Your task to perform on an android device: Add "logitech g pro" to the cart on walmart Image 0: 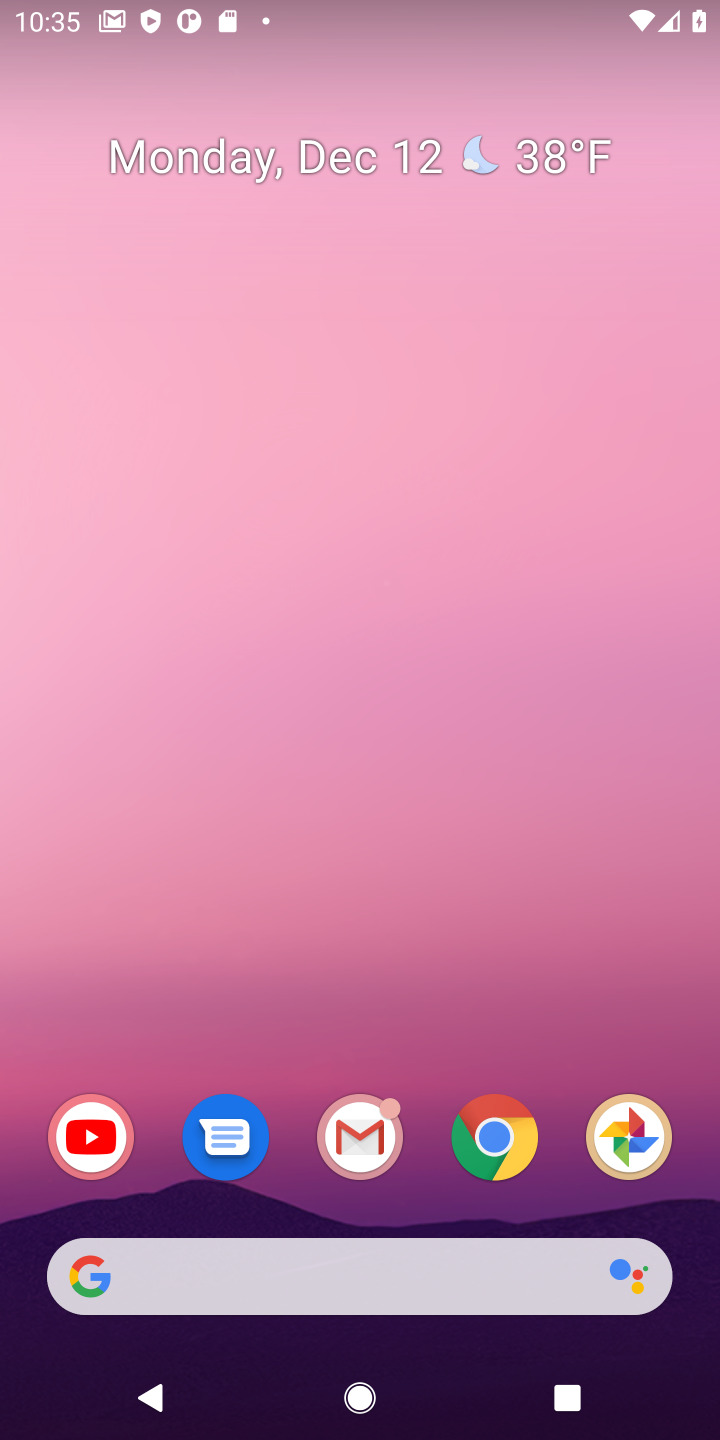
Step 0: press home button
Your task to perform on an android device: Add "logitech g pro" to the cart on walmart Image 1: 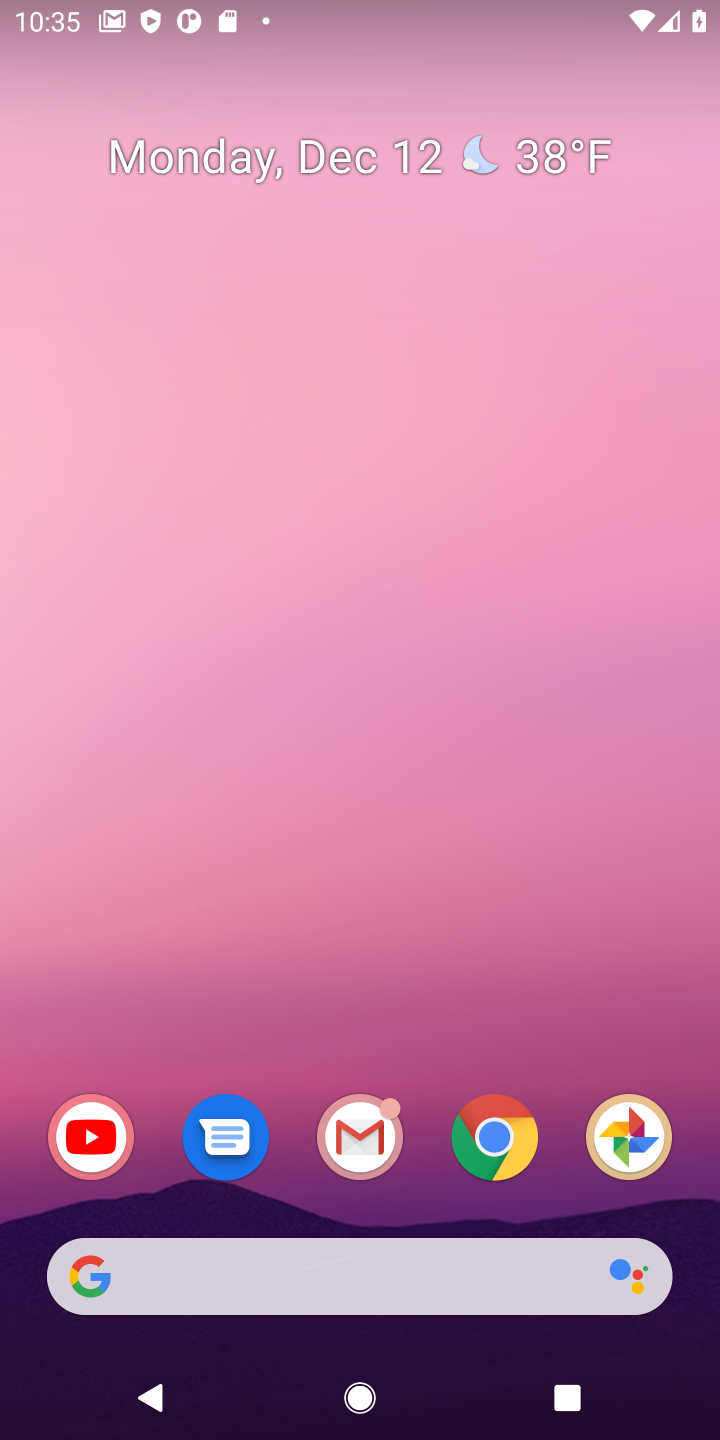
Step 1: click (399, 1278)
Your task to perform on an android device: Add "logitech g pro" to the cart on walmart Image 2: 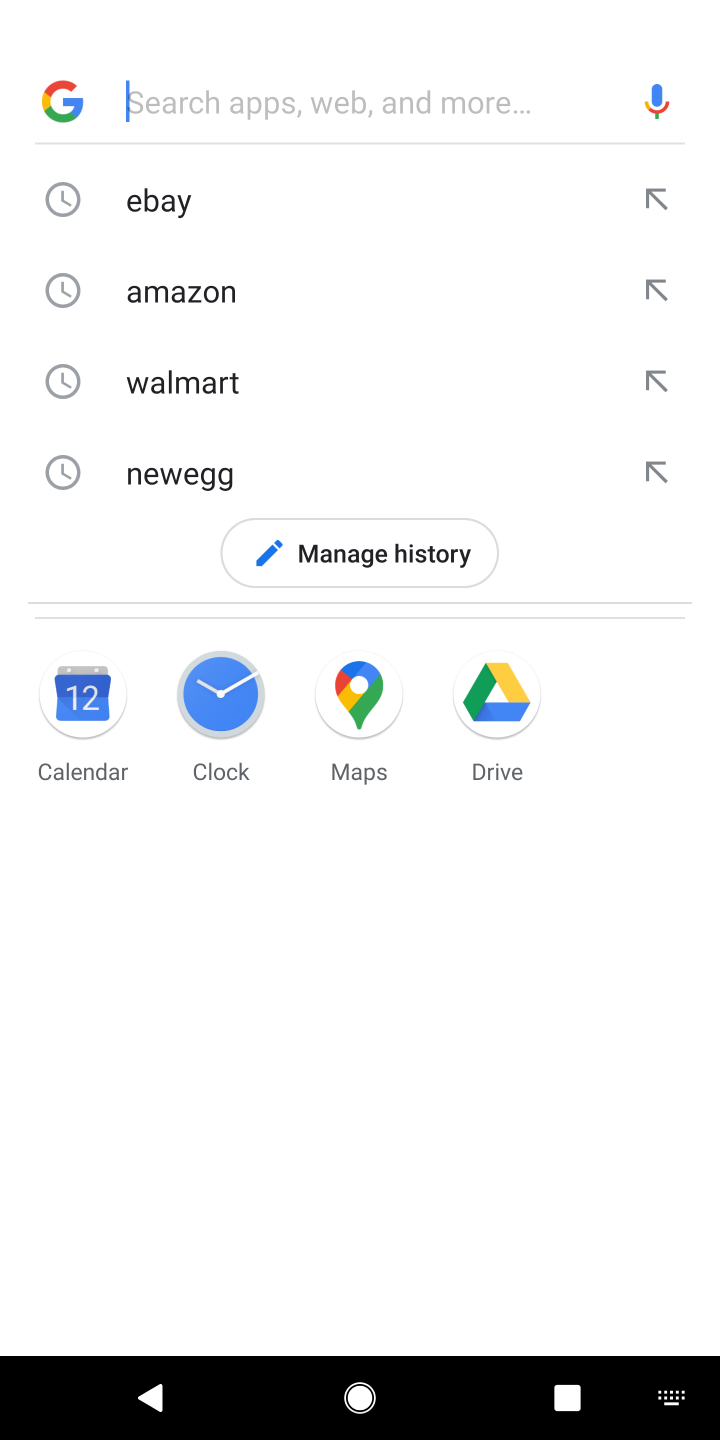
Step 2: click (215, 384)
Your task to perform on an android device: Add "logitech g pro" to the cart on walmart Image 3: 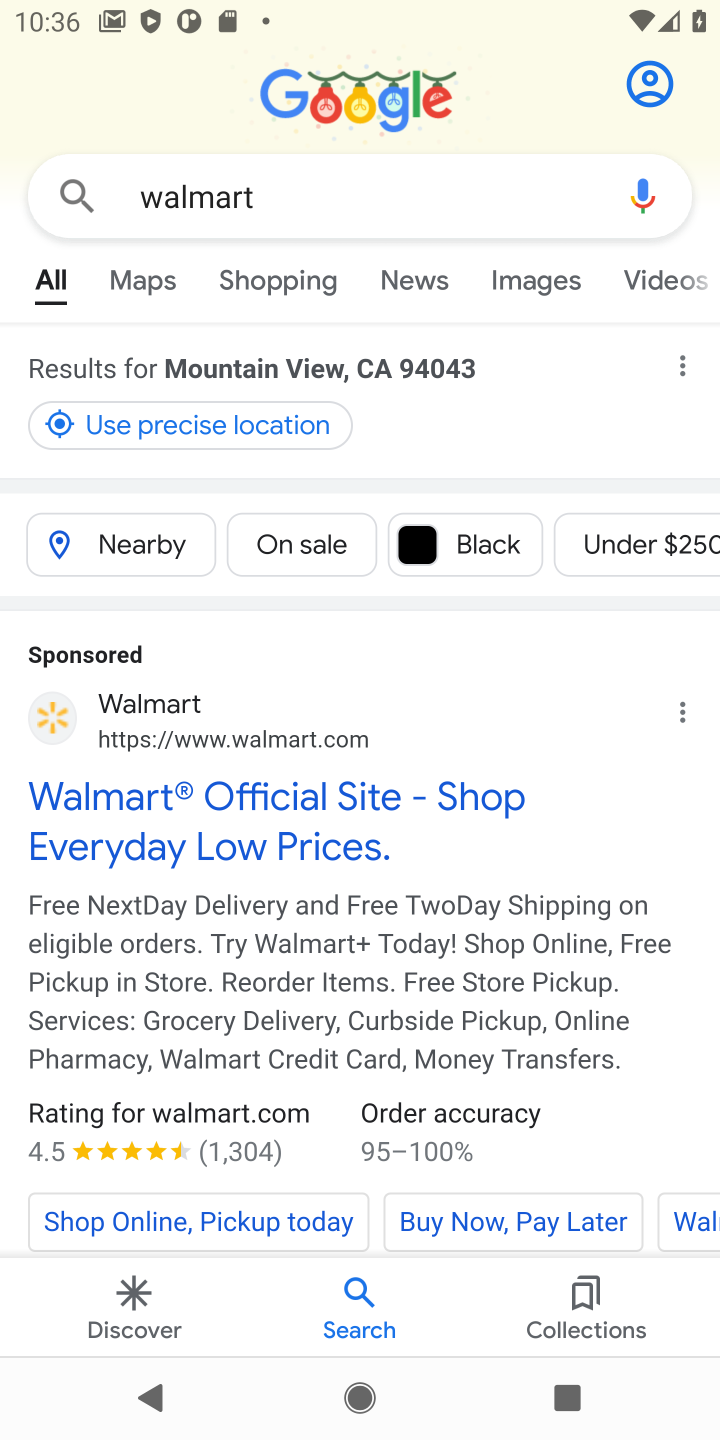
Step 3: click (261, 810)
Your task to perform on an android device: Add "logitech g pro" to the cart on walmart Image 4: 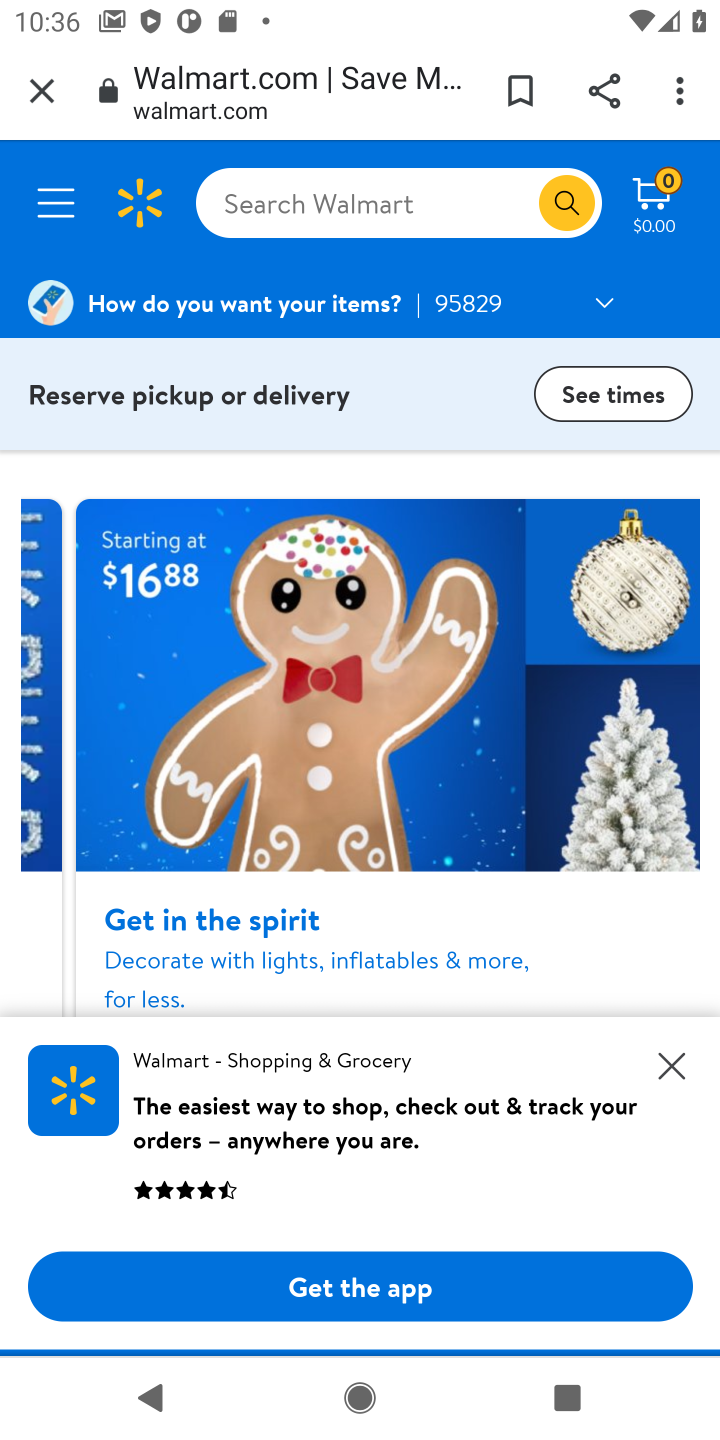
Step 4: click (328, 198)
Your task to perform on an android device: Add "logitech g pro" to the cart on walmart Image 5: 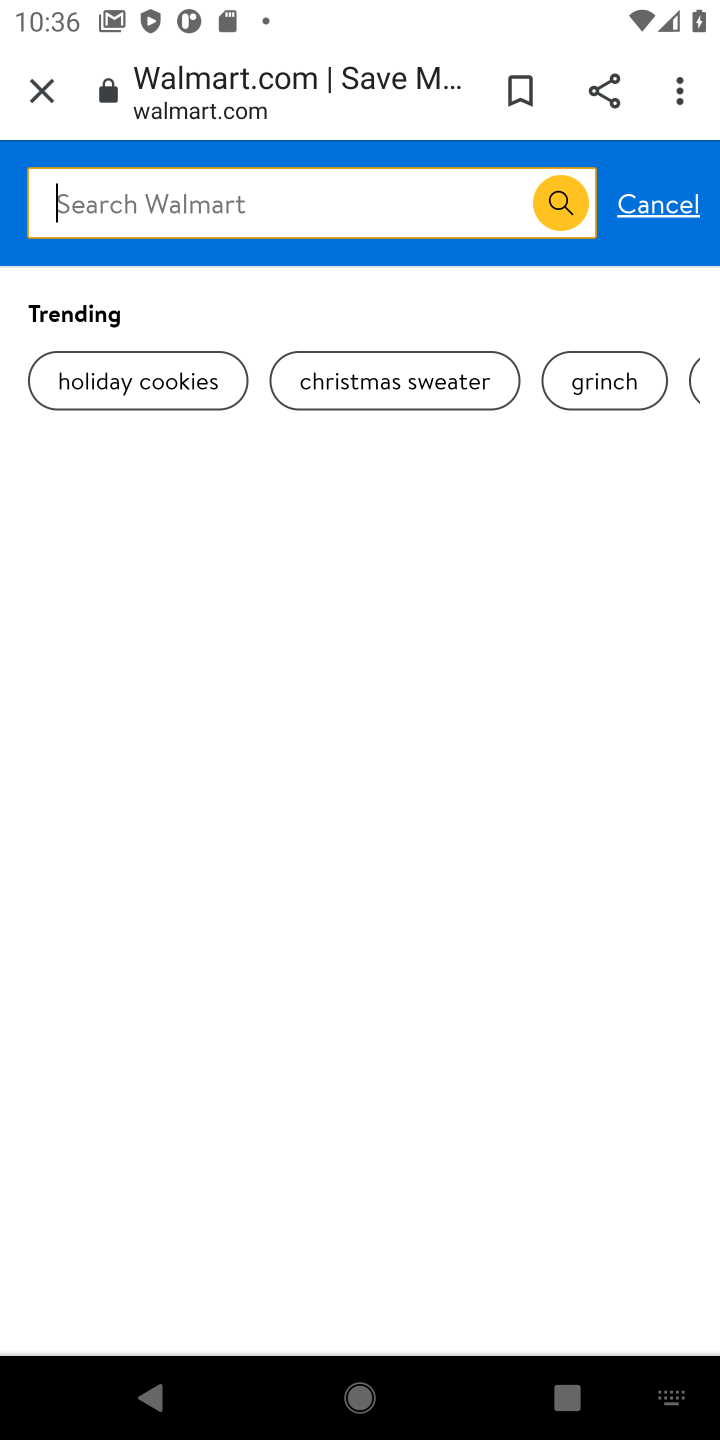
Step 5: type "logitech g pro"
Your task to perform on an android device: Add "logitech g pro" to the cart on walmart Image 6: 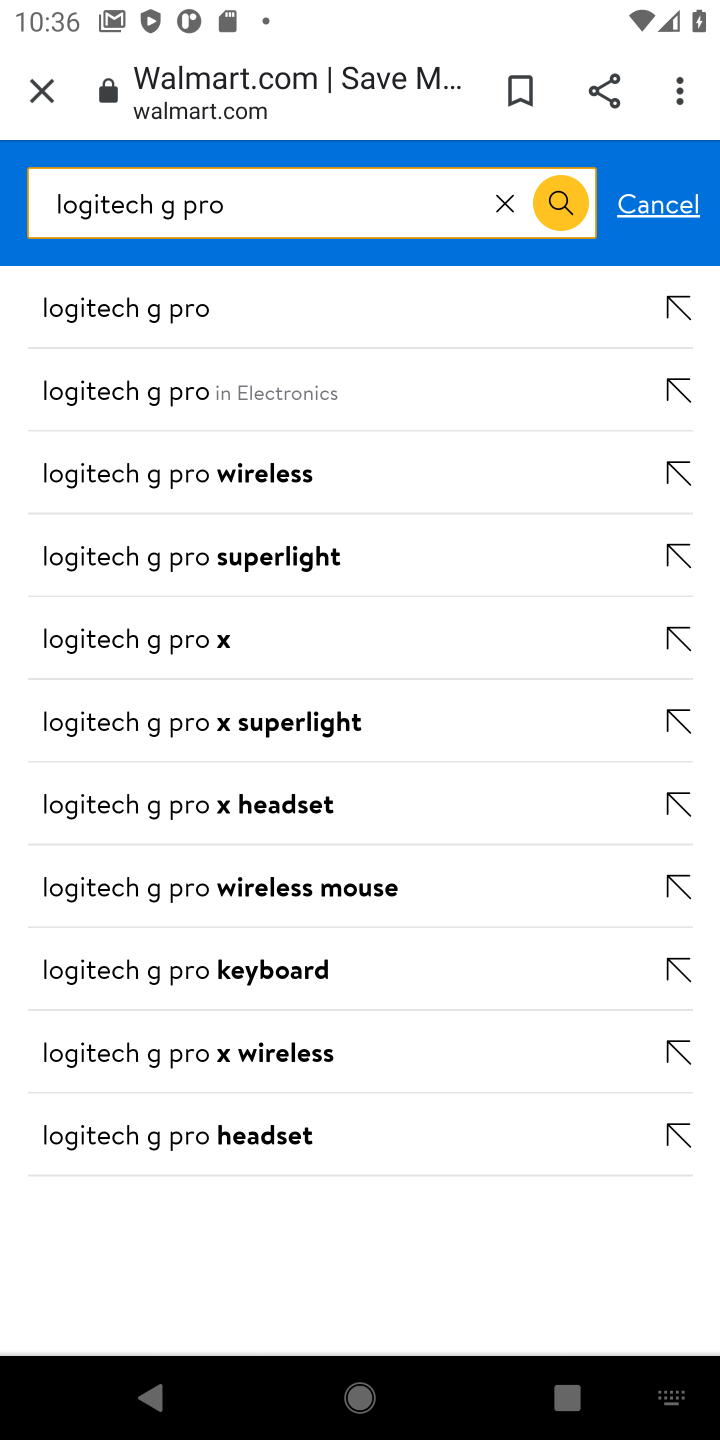
Step 6: click (544, 228)
Your task to perform on an android device: Add "logitech g pro" to the cart on walmart Image 7: 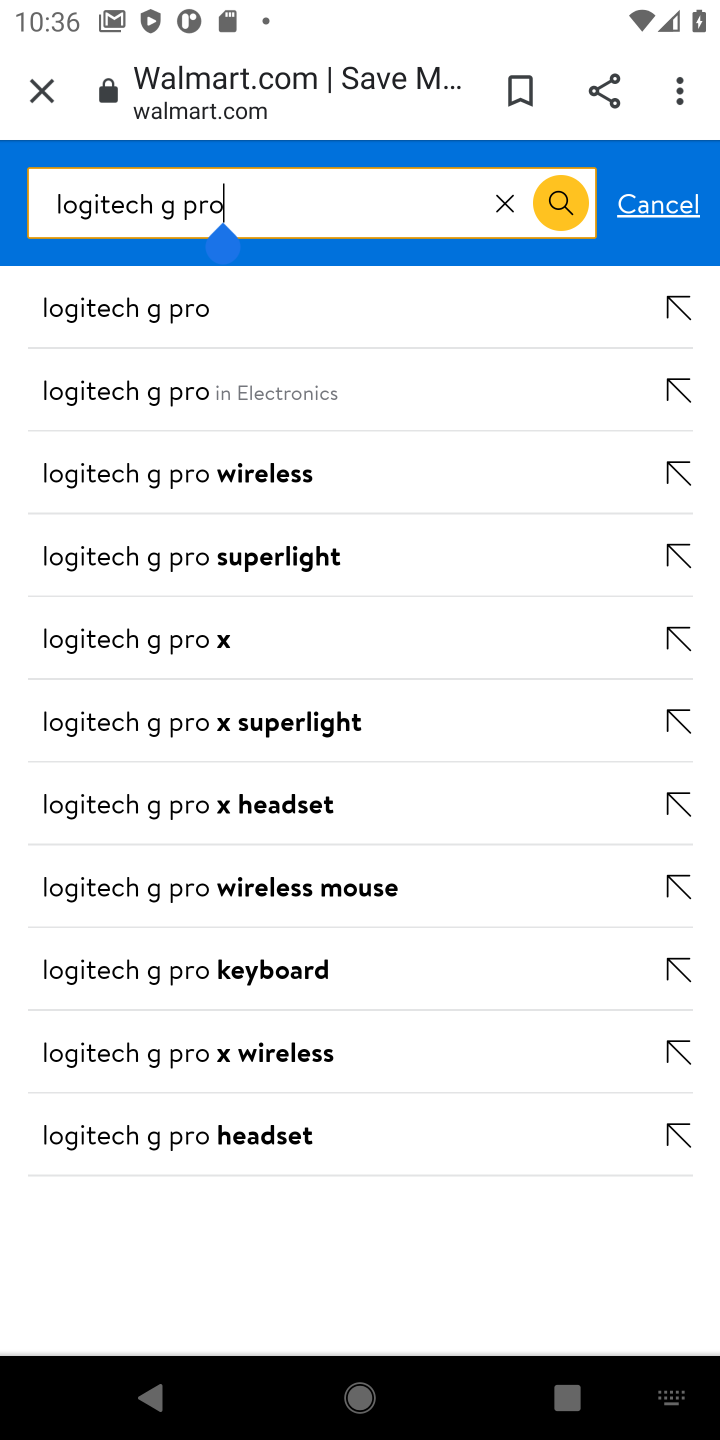
Step 7: click (163, 311)
Your task to perform on an android device: Add "logitech g pro" to the cart on walmart Image 8: 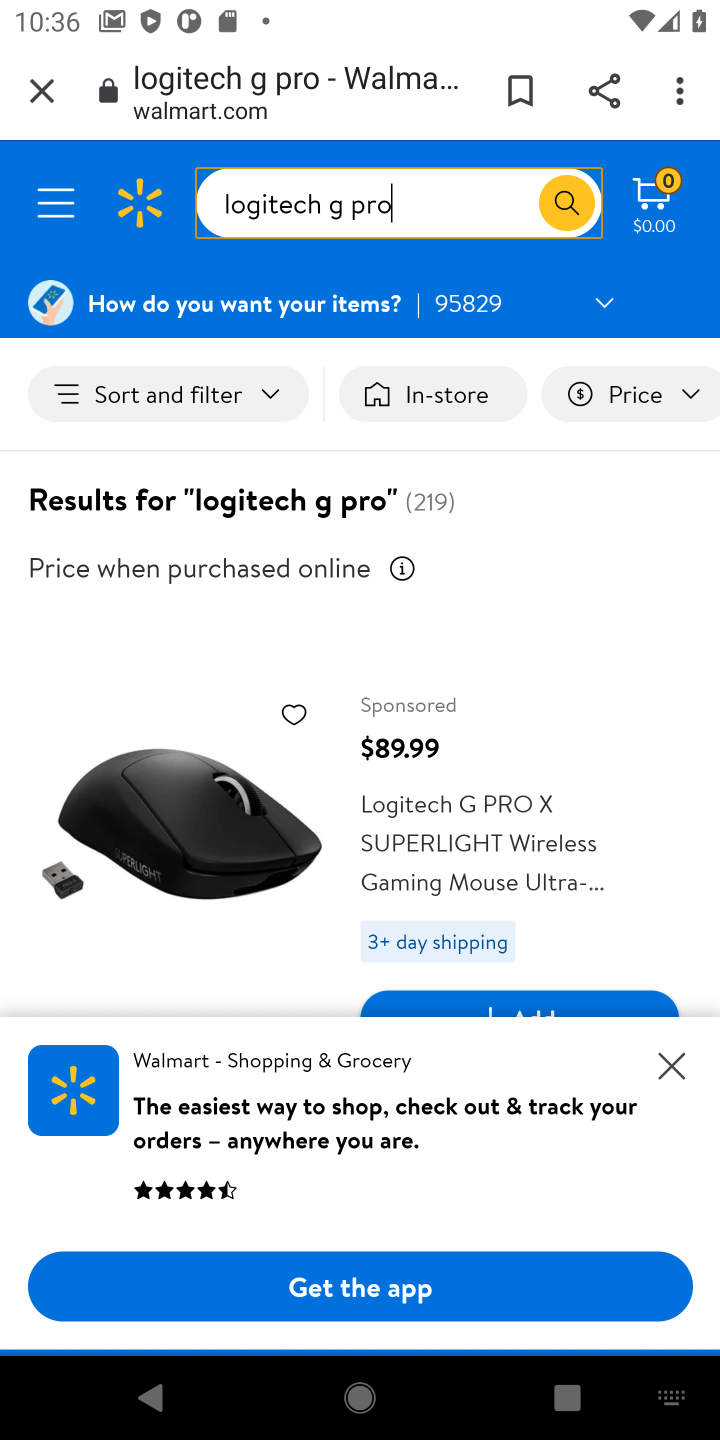
Step 8: click (435, 1005)
Your task to perform on an android device: Add "logitech g pro" to the cart on walmart Image 9: 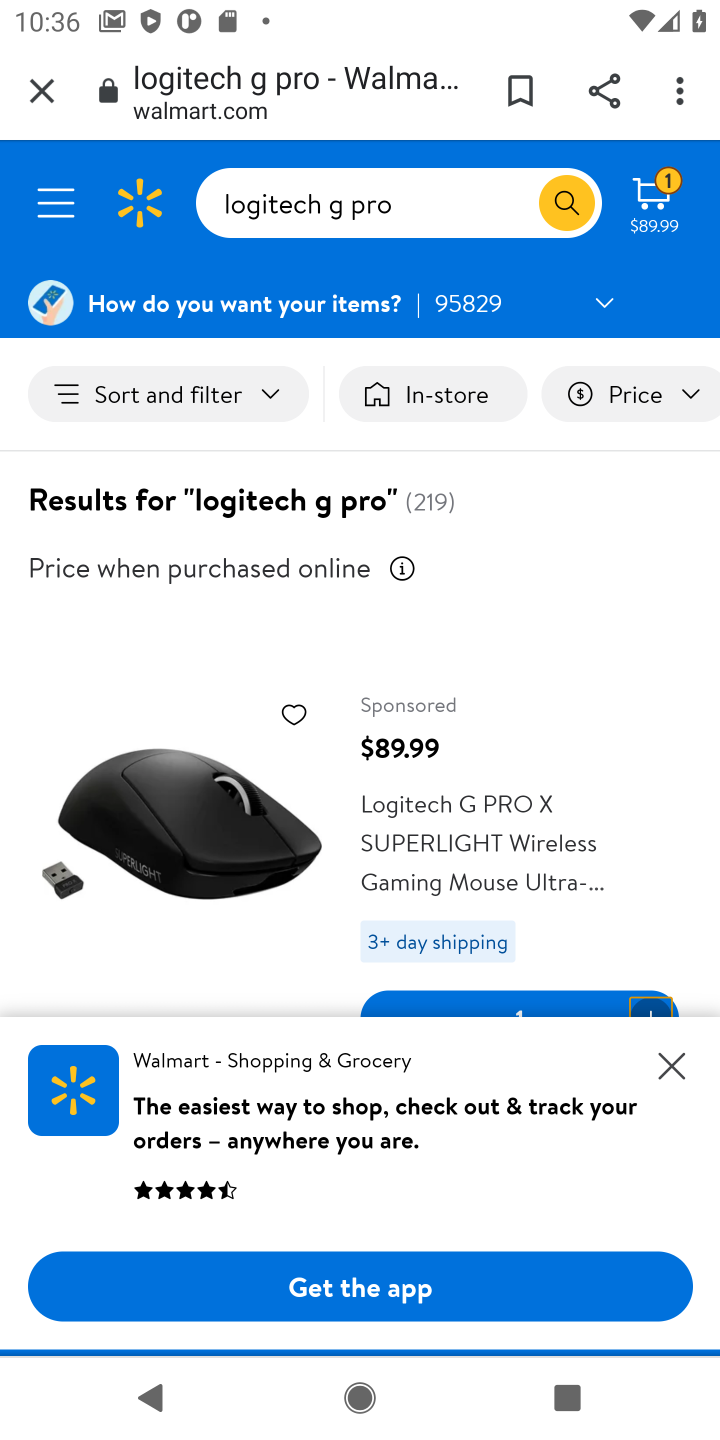
Step 9: task complete